Your task to perform on an android device: Check the weather Image 0: 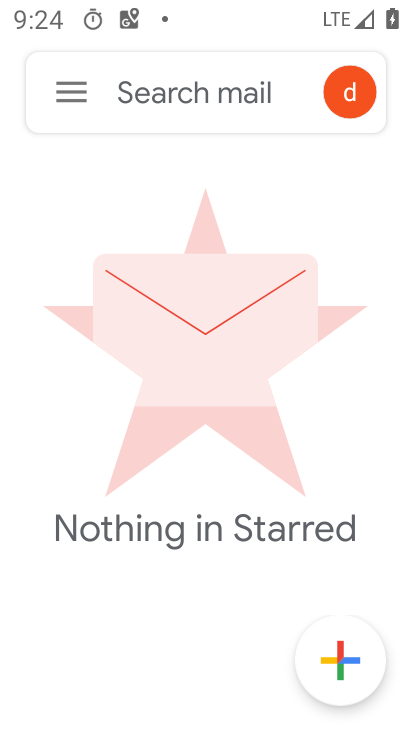
Step 0: press home button
Your task to perform on an android device: Check the weather Image 1: 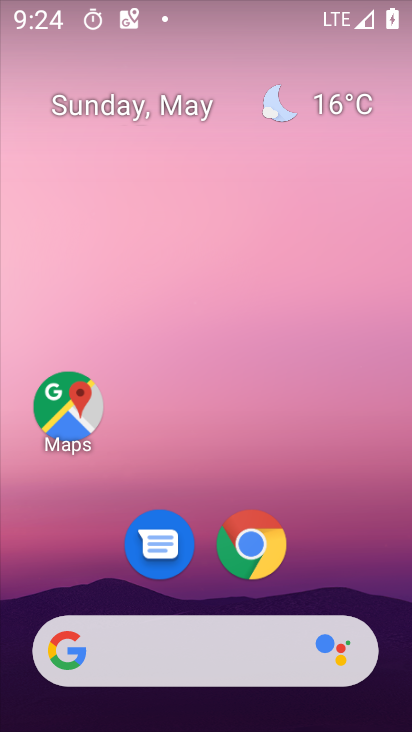
Step 1: drag from (309, 562) to (212, 50)
Your task to perform on an android device: Check the weather Image 2: 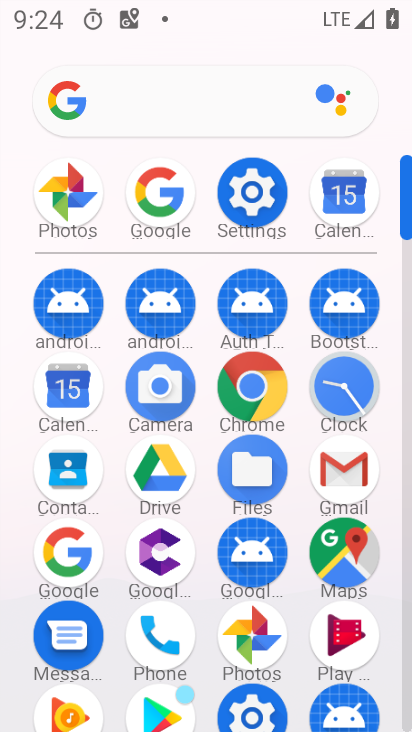
Step 2: click (56, 573)
Your task to perform on an android device: Check the weather Image 3: 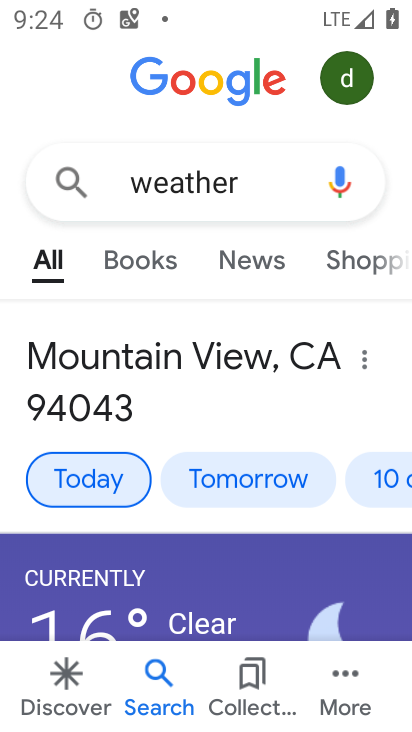
Step 3: task complete